Your task to perform on an android device: Search for Mexican restaurants on Maps Image 0: 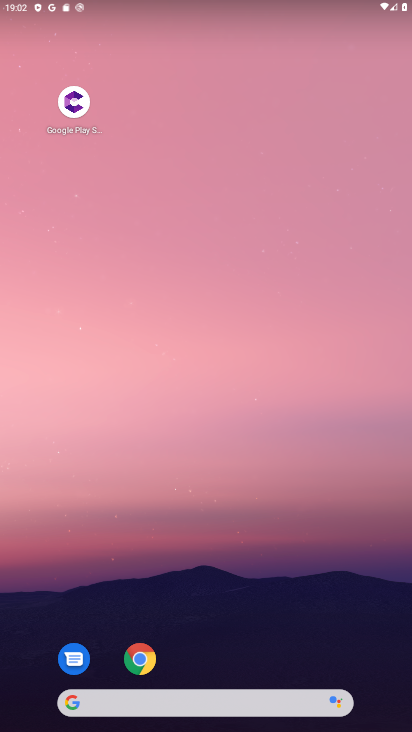
Step 0: drag from (215, 625) to (215, 144)
Your task to perform on an android device: Search for Mexican restaurants on Maps Image 1: 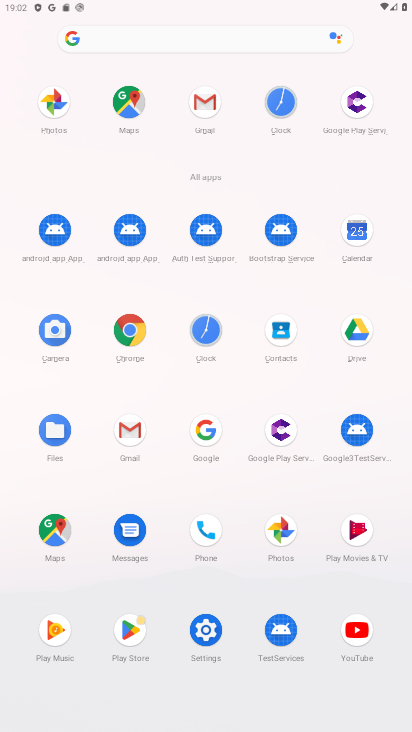
Step 1: click (133, 107)
Your task to perform on an android device: Search for Mexican restaurants on Maps Image 2: 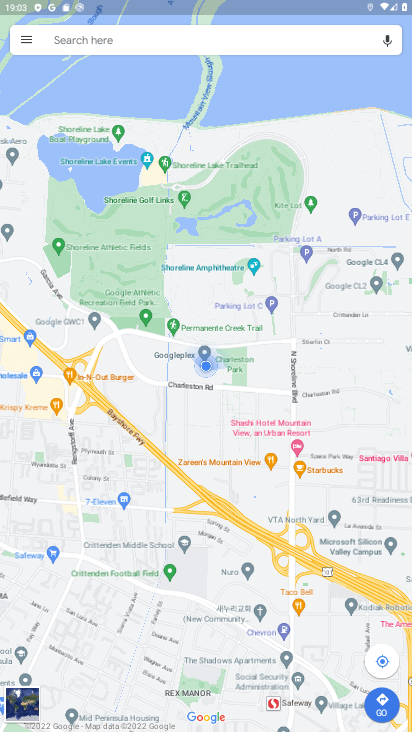
Step 2: click (93, 53)
Your task to perform on an android device: Search for Mexican restaurants on Maps Image 3: 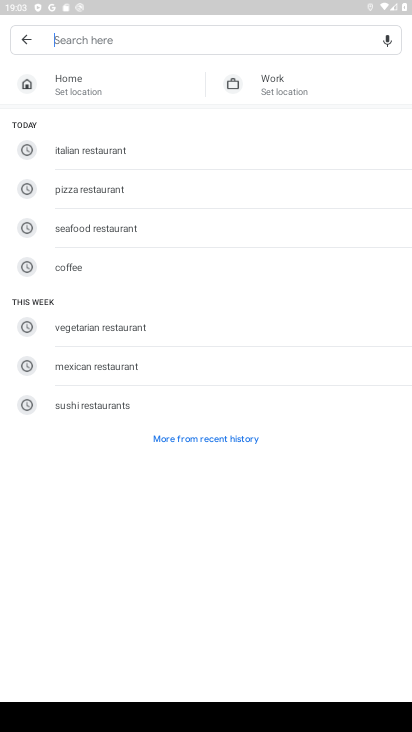
Step 3: click (127, 367)
Your task to perform on an android device: Search for Mexican restaurants on Maps Image 4: 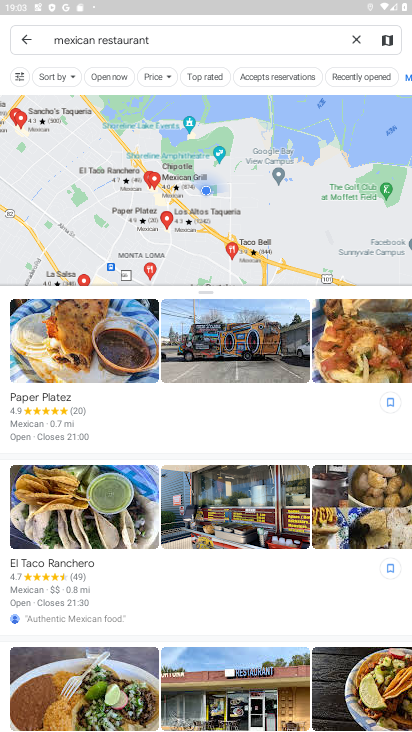
Step 4: task complete